Your task to perform on an android device: find which apps use the phone's location Image 0: 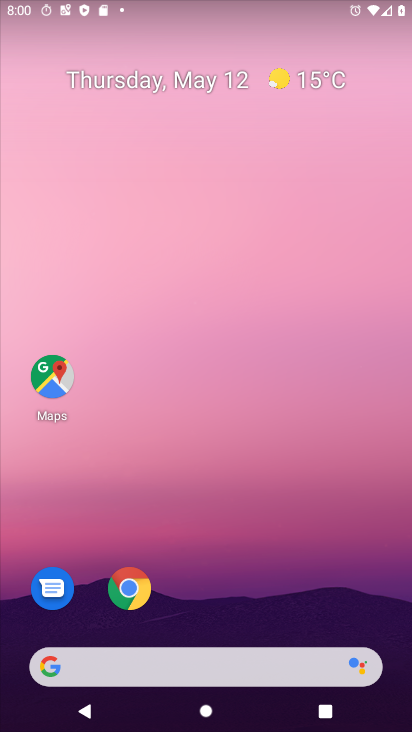
Step 0: drag from (200, 601) to (283, 187)
Your task to perform on an android device: find which apps use the phone's location Image 1: 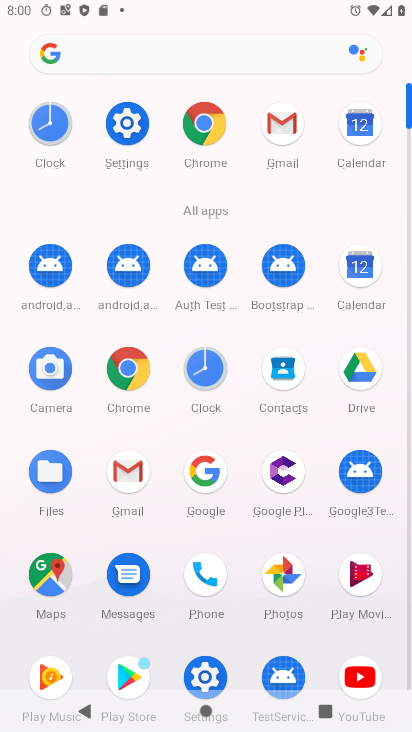
Step 1: click (121, 125)
Your task to perform on an android device: find which apps use the phone's location Image 2: 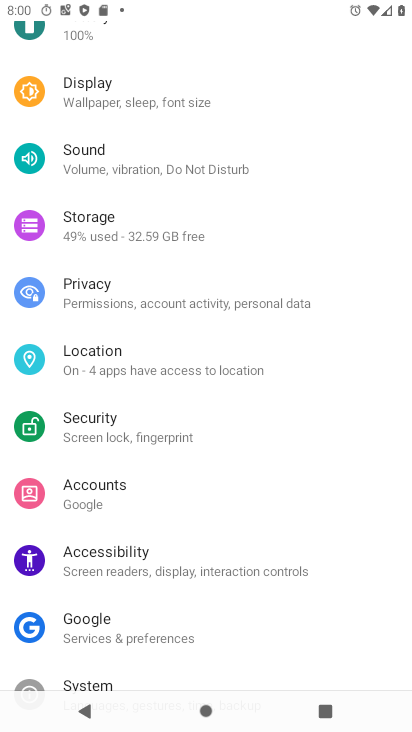
Step 2: drag from (319, 526) to (380, 350)
Your task to perform on an android device: find which apps use the phone's location Image 3: 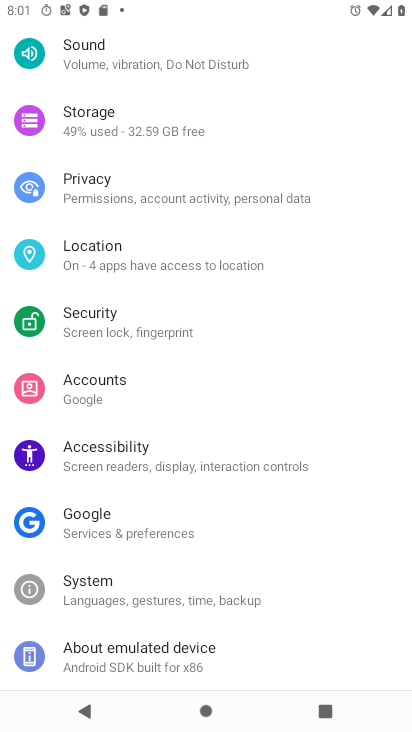
Step 3: click (125, 246)
Your task to perform on an android device: find which apps use the phone's location Image 4: 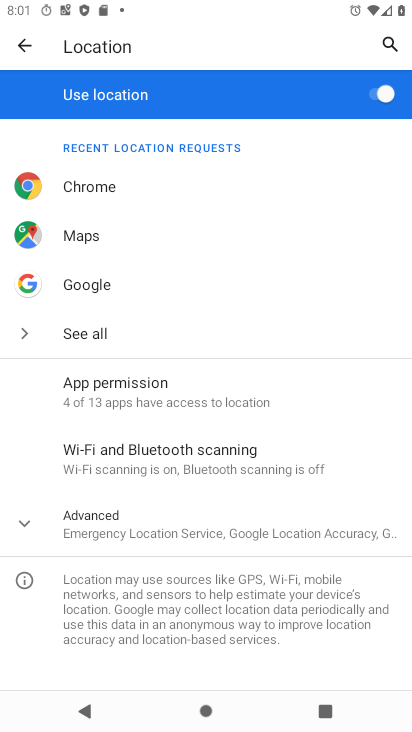
Step 4: click (95, 236)
Your task to perform on an android device: find which apps use the phone's location Image 5: 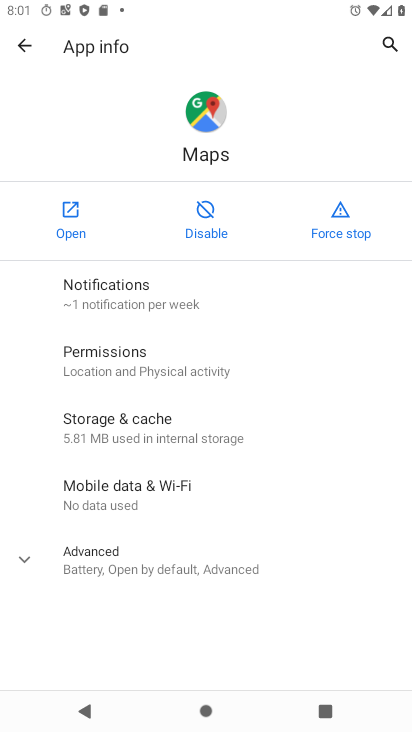
Step 5: task complete